Your task to perform on an android device: Open Yahoo.com Image 0: 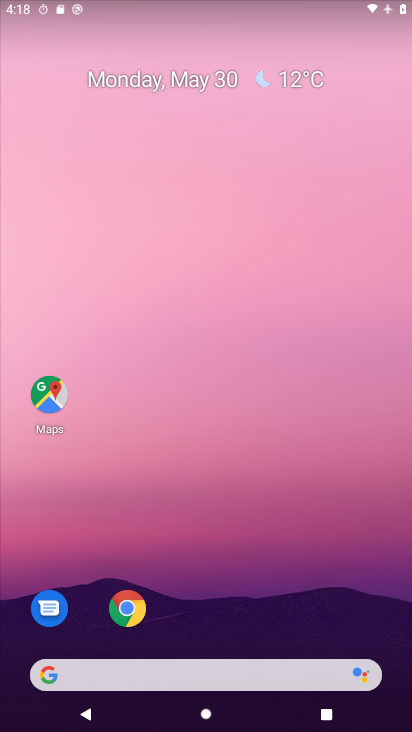
Step 0: click (116, 613)
Your task to perform on an android device: Open Yahoo.com Image 1: 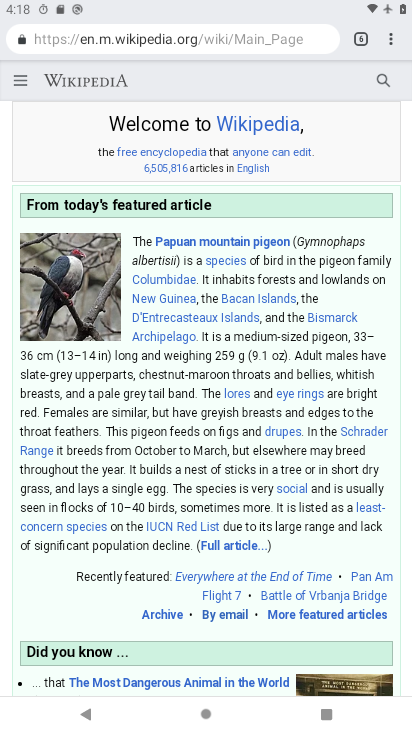
Step 1: click (357, 32)
Your task to perform on an android device: Open Yahoo.com Image 2: 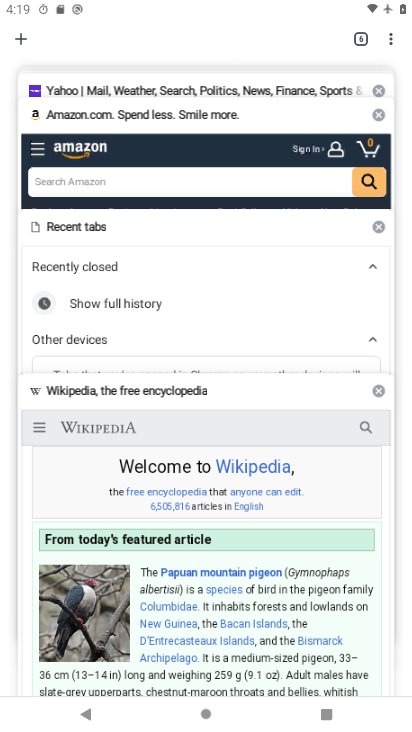
Step 2: click (21, 40)
Your task to perform on an android device: Open Yahoo.com Image 3: 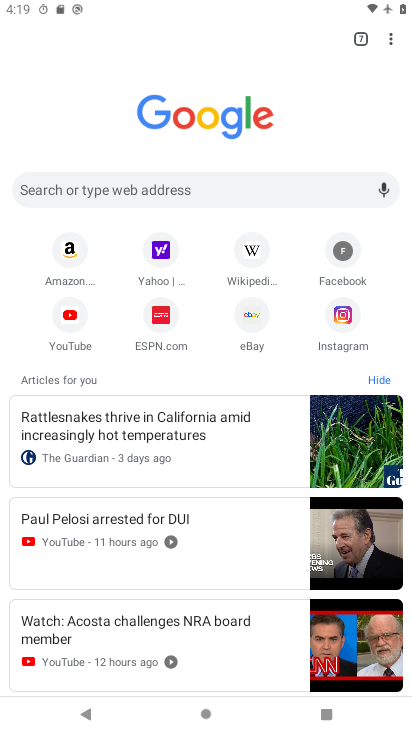
Step 3: click (164, 245)
Your task to perform on an android device: Open Yahoo.com Image 4: 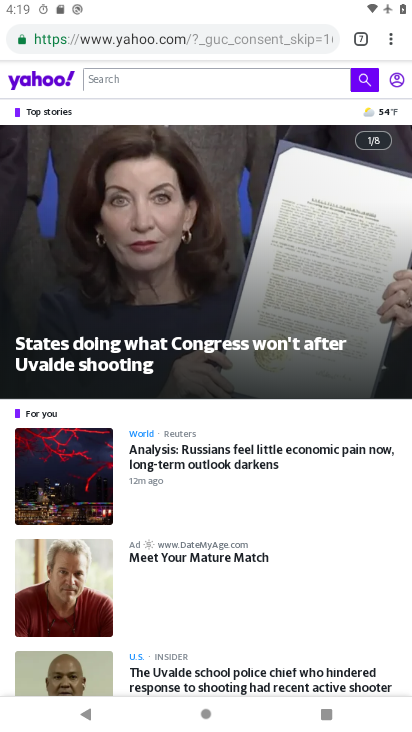
Step 4: task complete